Your task to perform on an android device: Go to sound settings Image 0: 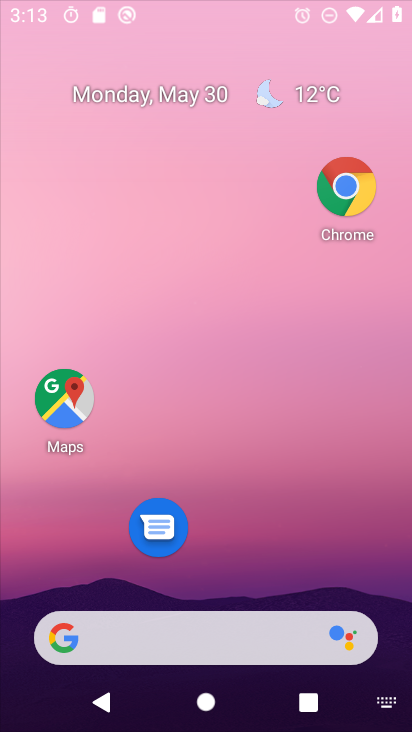
Step 0: drag from (321, 187) to (375, 5)
Your task to perform on an android device: Go to sound settings Image 1: 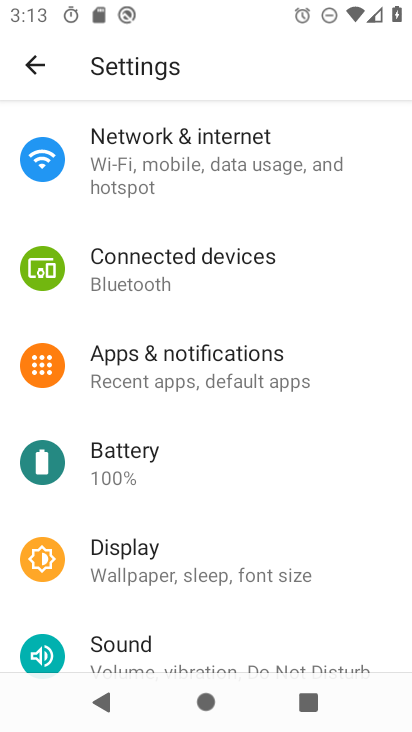
Step 1: drag from (195, 612) to (265, 219)
Your task to perform on an android device: Go to sound settings Image 2: 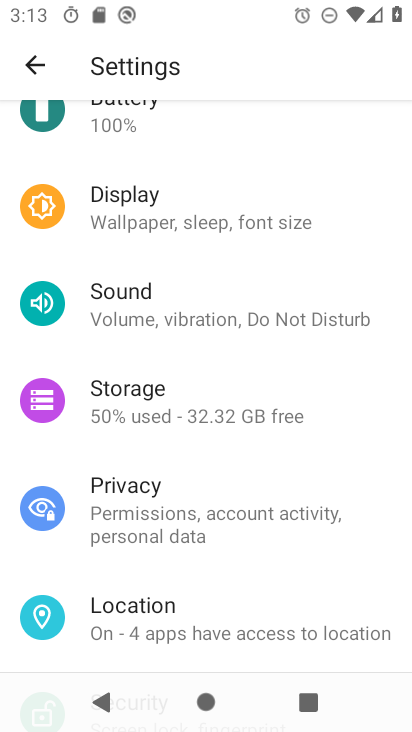
Step 2: click (191, 300)
Your task to perform on an android device: Go to sound settings Image 3: 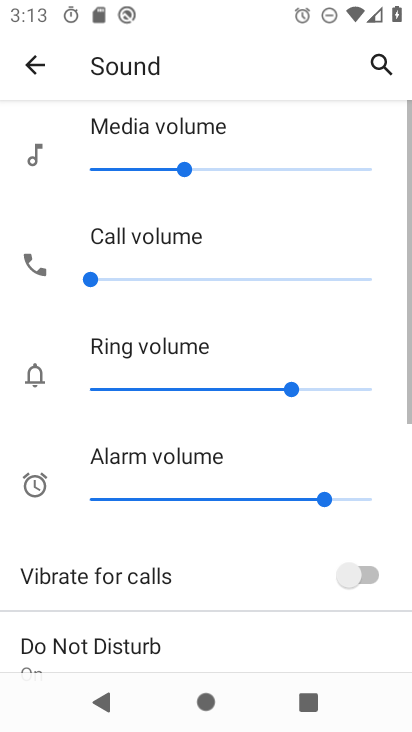
Step 3: task complete